Your task to perform on an android device: turn on wifi Image 0: 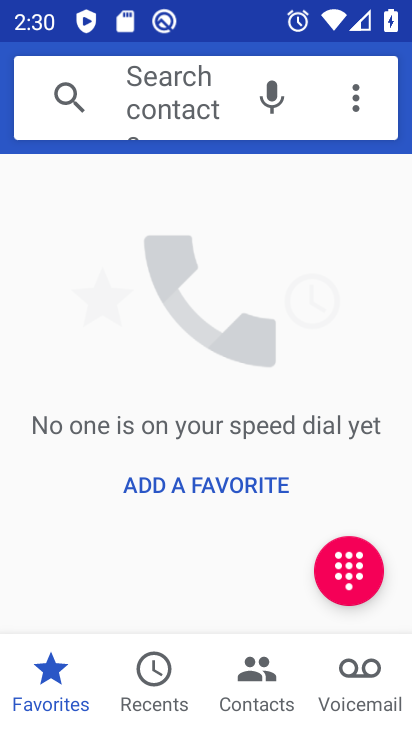
Step 0: press home button
Your task to perform on an android device: turn on wifi Image 1: 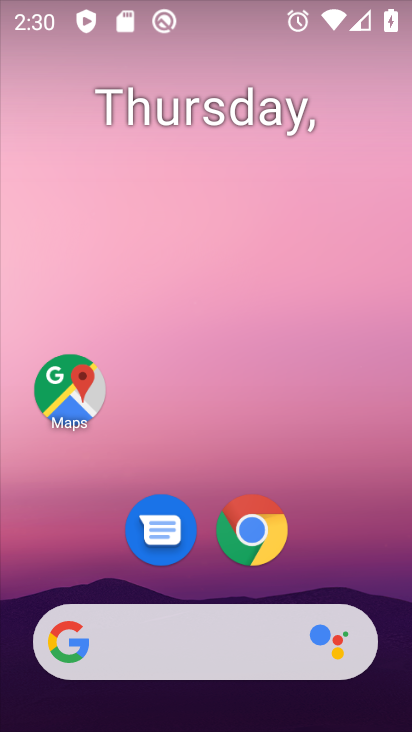
Step 1: drag from (227, 719) to (224, 54)
Your task to perform on an android device: turn on wifi Image 2: 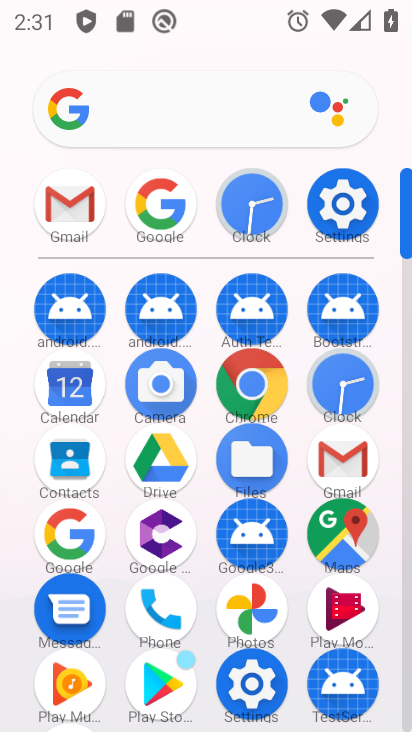
Step 2: click (350, 194)
Your task to perform on an android device: turn on wifi Image 3: 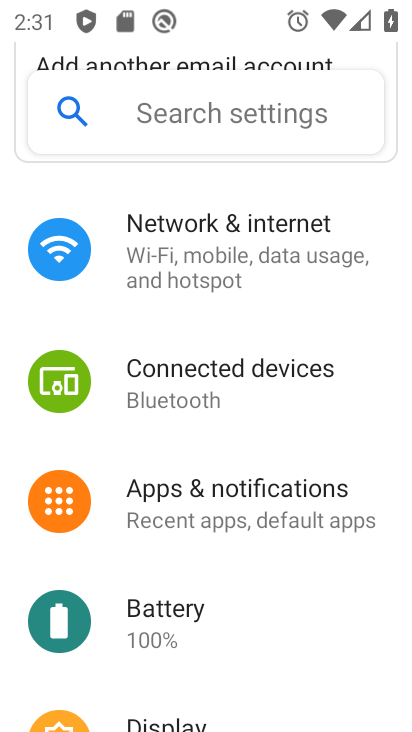
Step 3: drag from (300, 266) to (302, 642)
Your task to perform on an android device: turn on wifi Image 4: 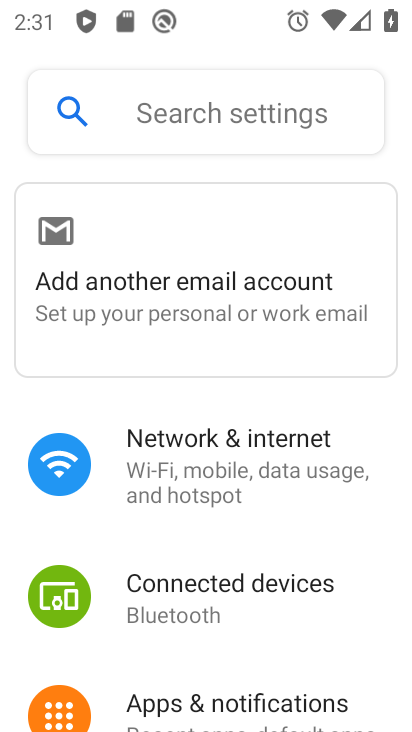
Step 4: click (202, 448)
Your task to perform on an android device: turn on wifi Image 5: 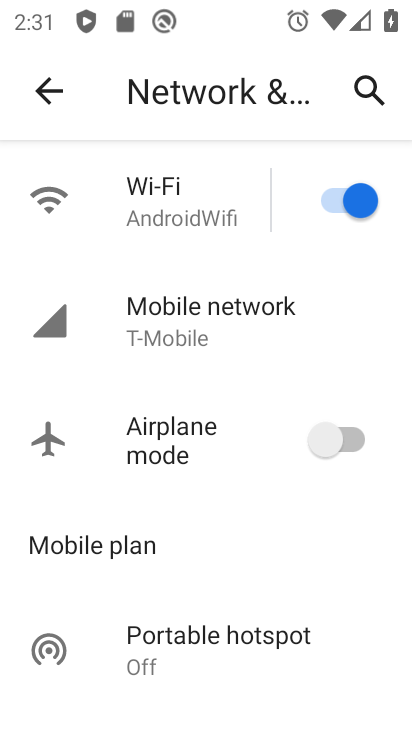
Step 5: task complete